Your task to perform on an android device: What's the weather today? Image 0: 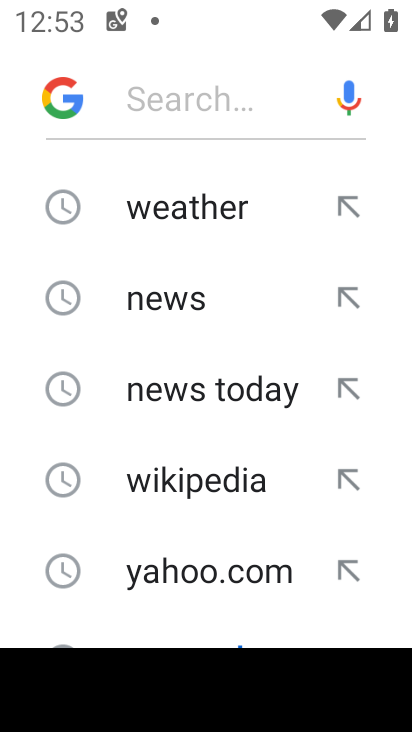
Step 0: click (202, 201)
Your task to perform on an android device: What's the weather today? Image 1: 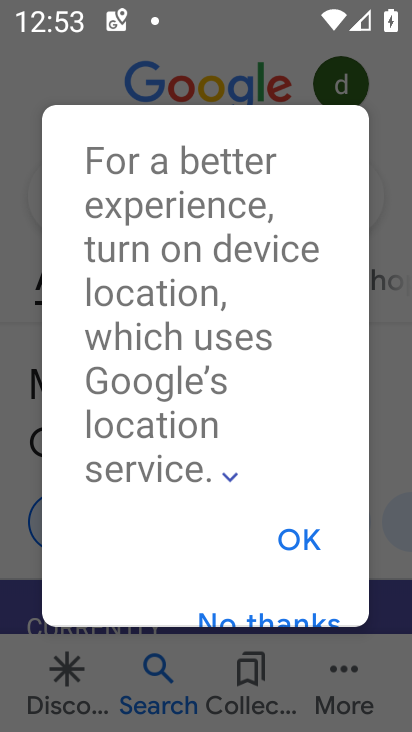
Step 1: task complete